Your task to perform on an android device: set an alarm Image 0: 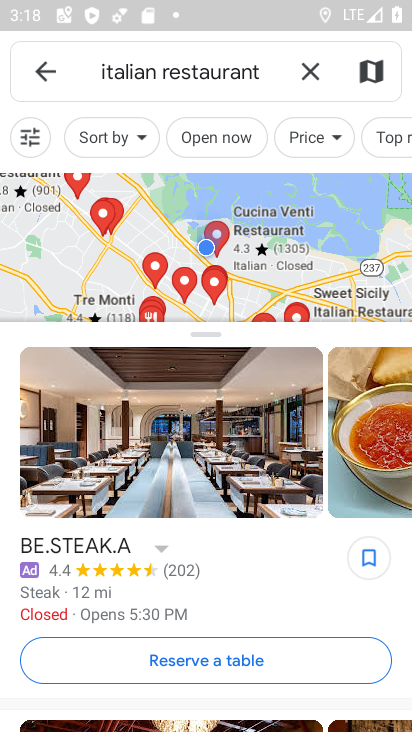
Step 0: press home button
Your task to perform on an android device: set an alarm Image 1: 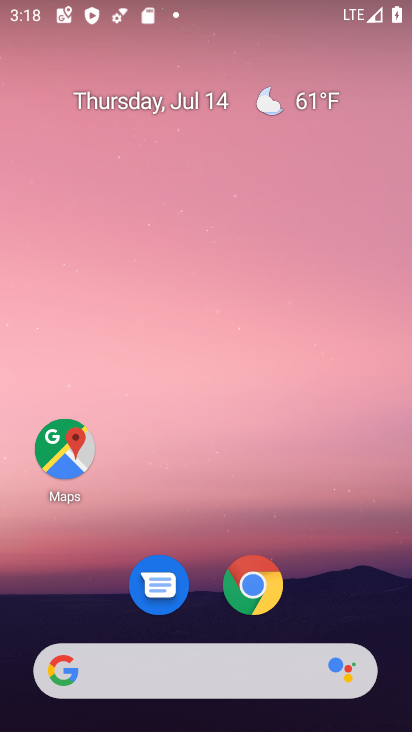
Step 1: drag from (335, 507) to (311, 0)
Your task to perform on an android device: set an alarm Image 2: 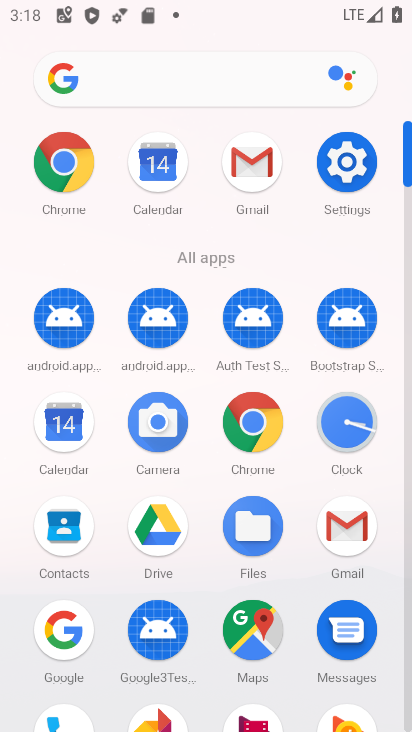
Step 2: click (352, 433)
Your task to perform on an android device: set an alarm Image 3: 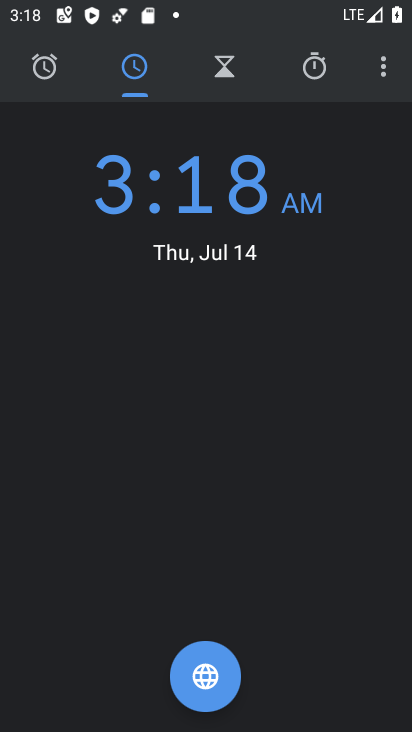
Step 3: click (52, 63)
Your task to perform on an android device: set an alarm Image 4: 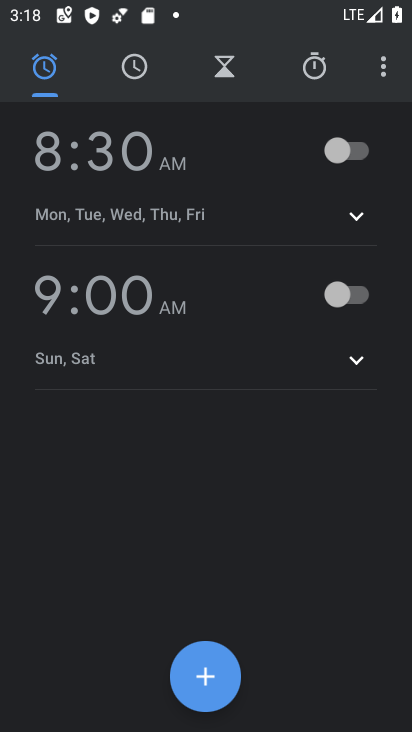
Step 4: click (212, 678)
Your task to perform on an android device: set an alarm Image 5: 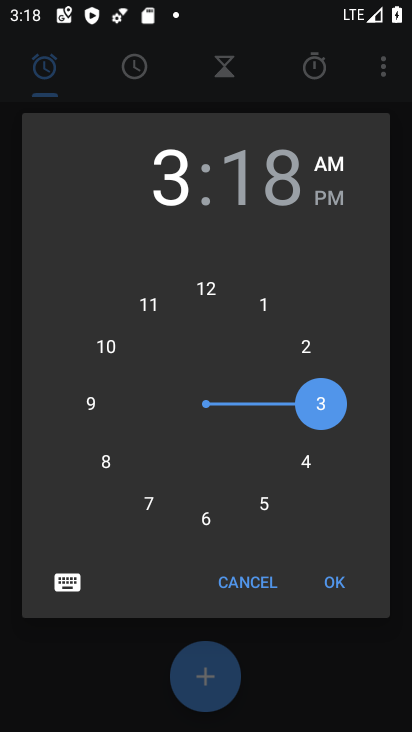
Step 5: click (304, 340)
Your task to perform on an android device: set an alarm Image 6: 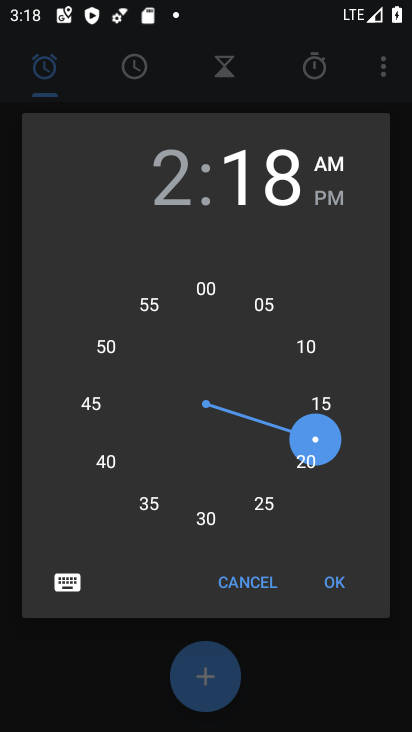
Step 6: click (213, 290)
Your task to perform on an android device: set an alarm Image 7: 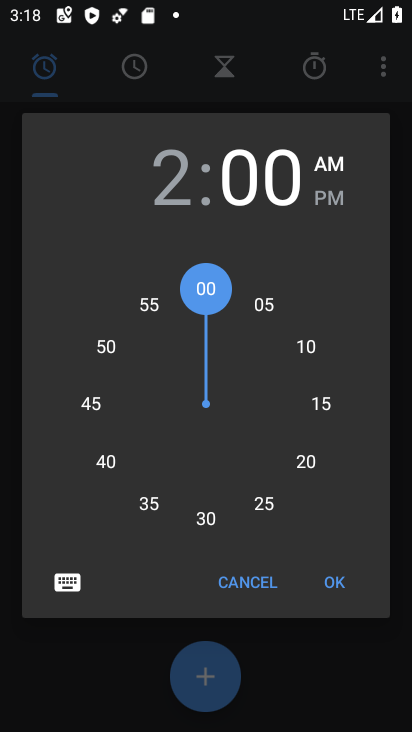
Step 7: click (344, 587)
Your task to perform on an android device: set an alarm Image 8: 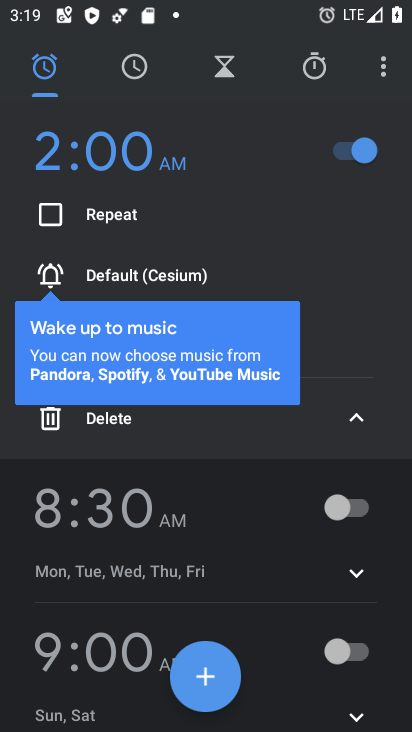
Step 8: task complete